Your task to perform on an android device: Open network settings Image 0: 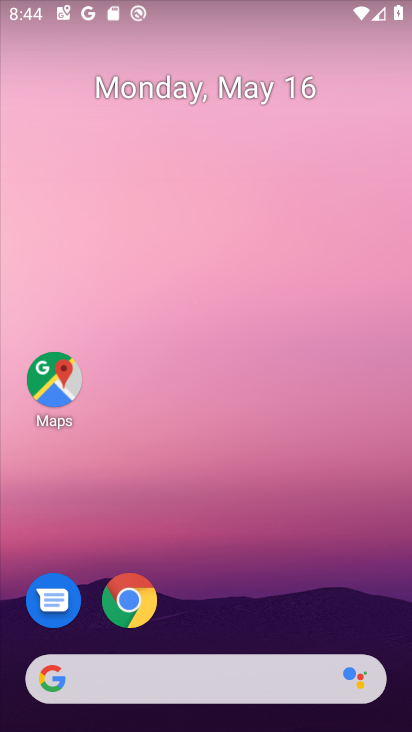
Step 0: drag from (200, 576) to (113, 305)
Your task to perform on an android device: Open network settings Image 1: 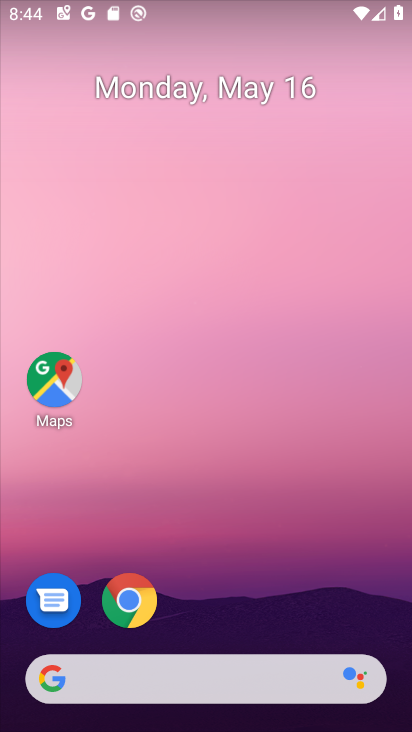
Step 1: drag from (261, 628) to (151, 348)
Your task to perform on an android device: Open network settings Image 2: 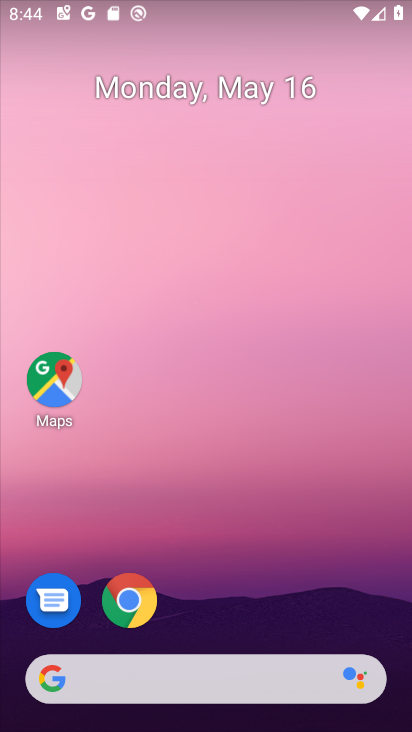
Step 2: drag from (198, 670) to (49, 329)
Your task to perform on an android device: Open network settings Image 3: 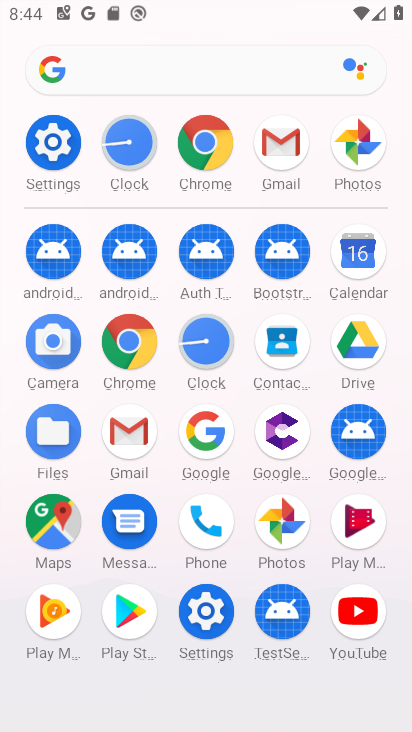
Step 3: click (206, 125)
Your task to perform on an android device: Open network settings Image 4: 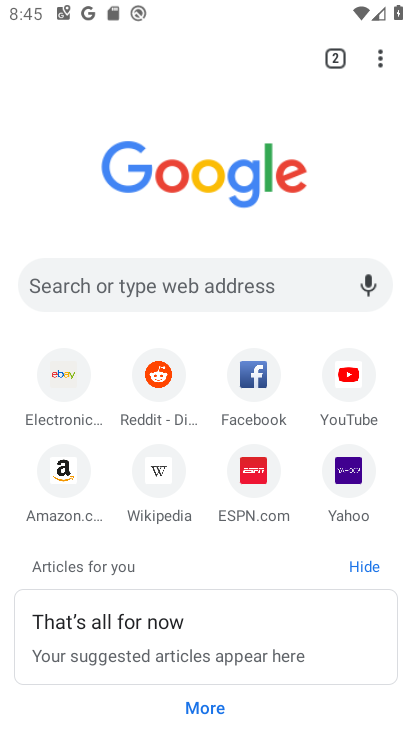
Step 4: press home button
Your task to perform on an android device: Open network settings Image 5: 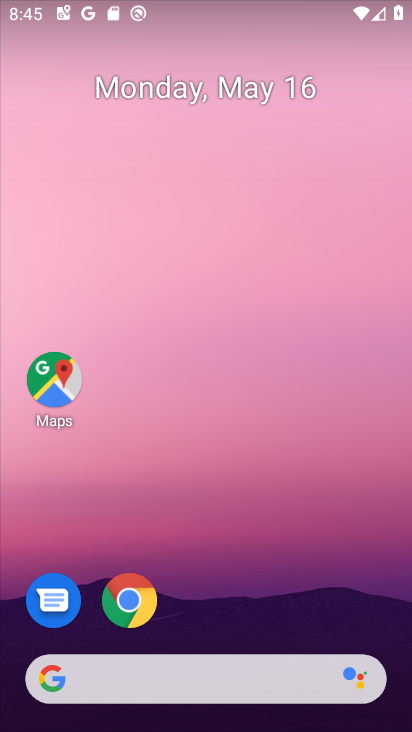
Step 5: drag from (165, 222) to (158, 187)
Your task to perform on an android device: Open network settings Image 6: 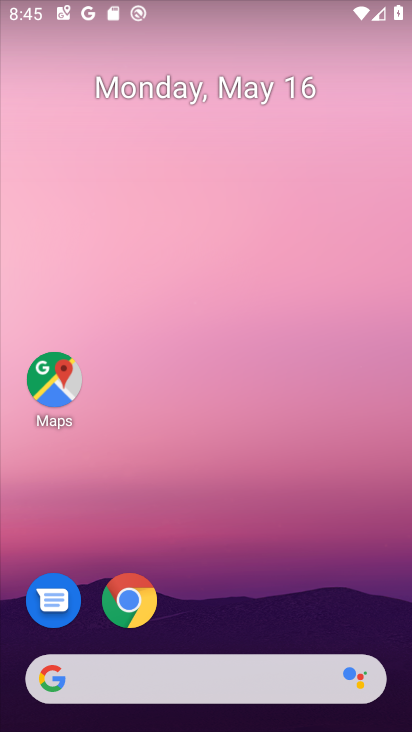
Step 6: drag from (230, 614) to (165, 32)
Your task to perform on an android device: Open network settings Image 7: 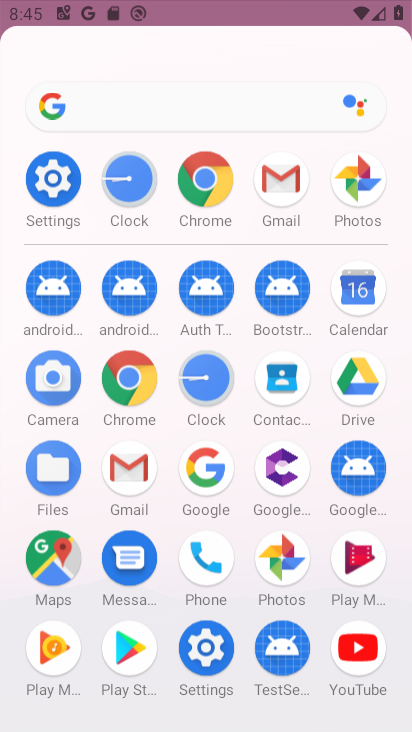
Step 7: drag from (251, 548) to (122, 14)
Your task to perform on an android device: Open network settings Image 8: 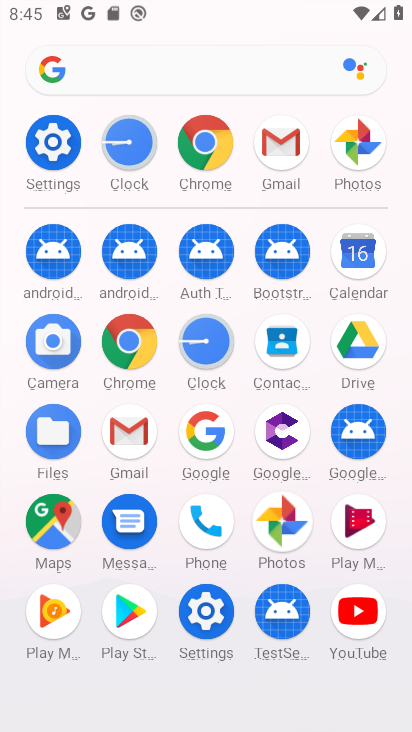
Step 8: drag from (125, 597) to (81, 5)
Your task to perform on an android device: Open network settings Image 9: 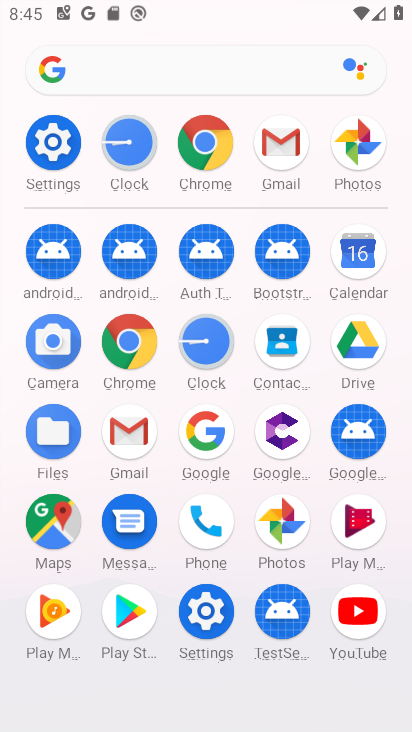
Step 9: click (64, 146)
Your task to perform on an android device: Open network settings Image 10: 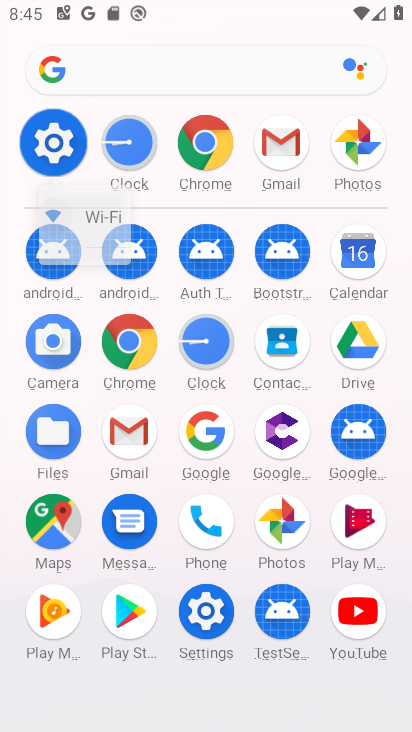
Step 10: click (68, 149)
Your task to perform on an android device: Open network settings Image 11: 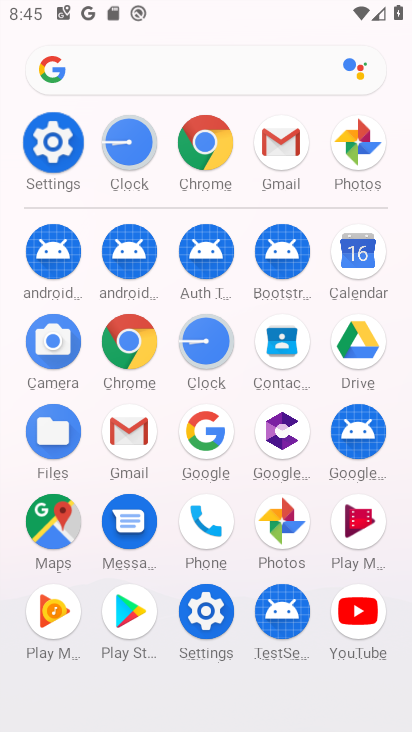
Step 11: click (67, 147)
Your task to perform on an android device: Open network settings Image 12: 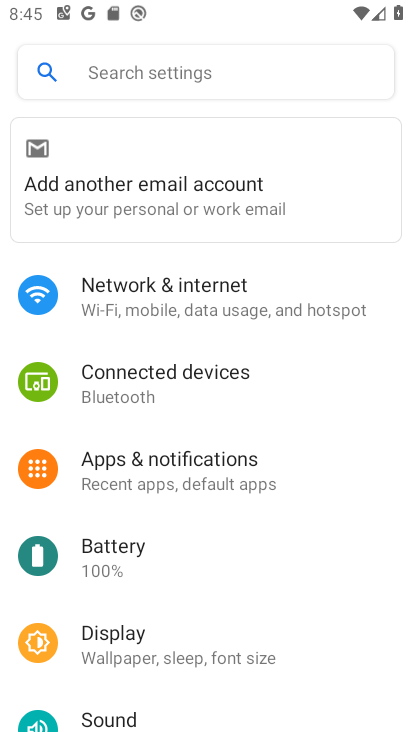
Step 12: click (172, 311)
Your task to perform on an android device: Open network settings Image 13: 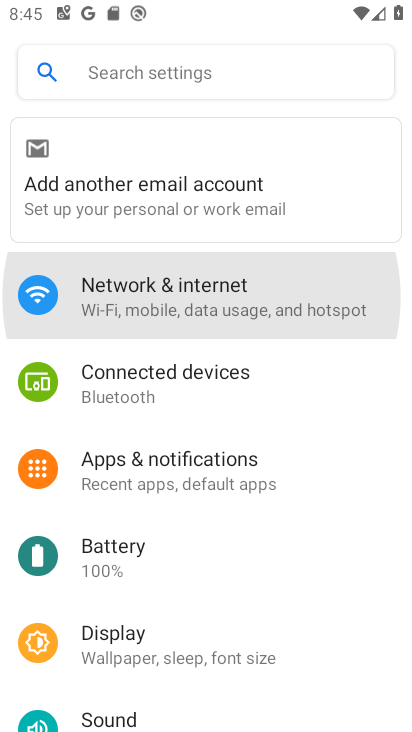
Step 13: click (172, 311)
Your task to perform on an android device: Open network settings Image 14: 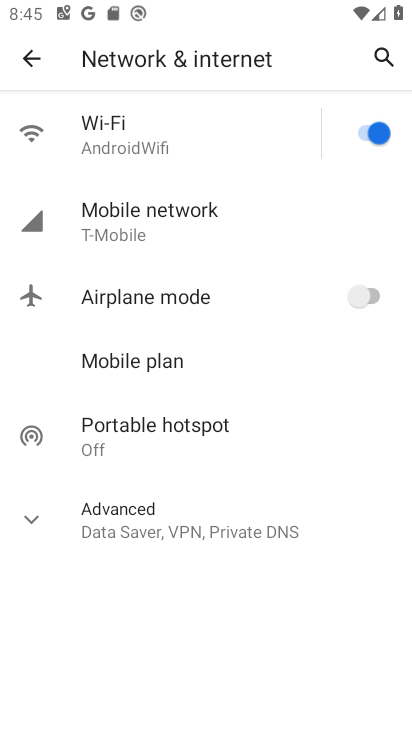
Step 14: task complete